Your task to perform on an android device: Go to privacy settings Image 0: 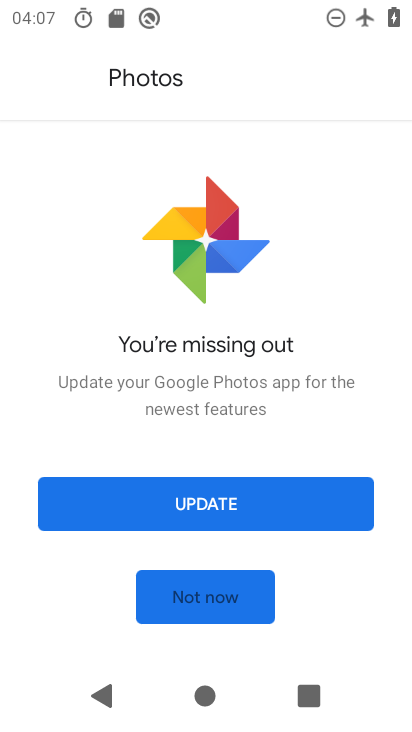
Step 0: press back button
Your task to perform on an android device: Go to privacy settings Image 1: 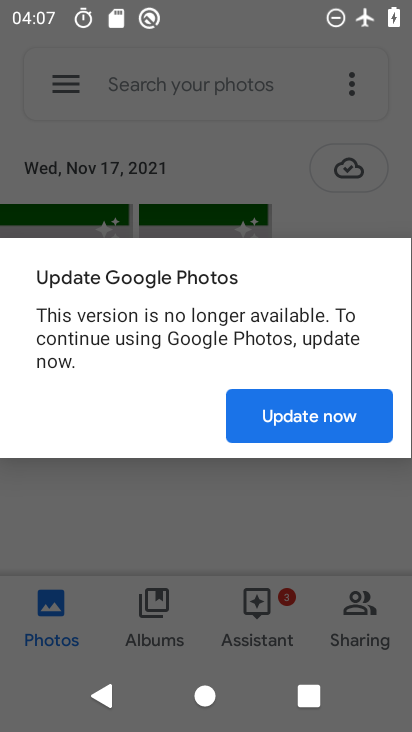
Step 1: press home button
Your task to perform on an android device: Go to privacy settings Image 2: 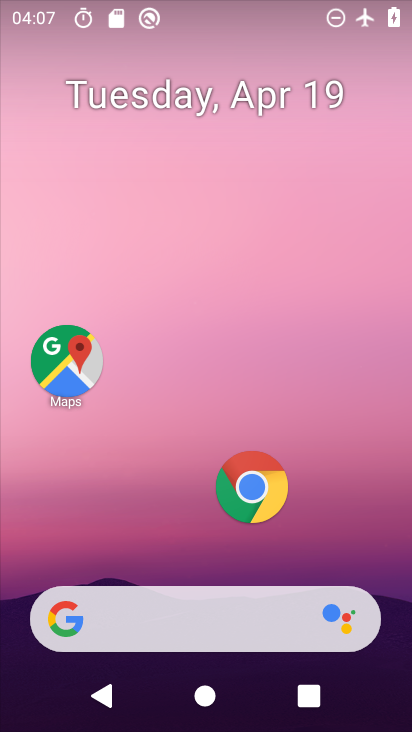
Step 2: drag from (175, 537) to (406, 12)
Your task to perform on an android device: Go to privacy settings Image 3: 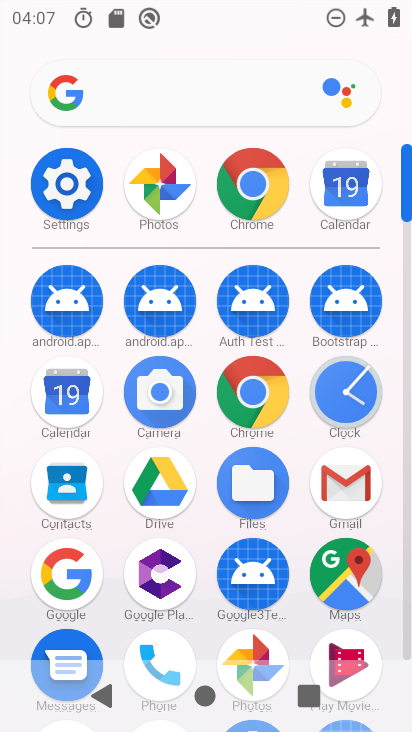
Step 3: click (87, 181)
Your task to perform on an android device: Go to privacy settings Image 4: 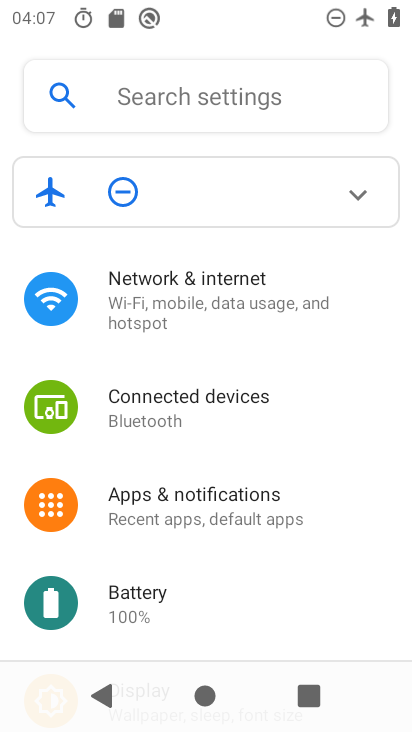
Step 4: drag from (162, 523) to (231, 116)
Your task to perform on an android device: Go to privacy settings Image 5: 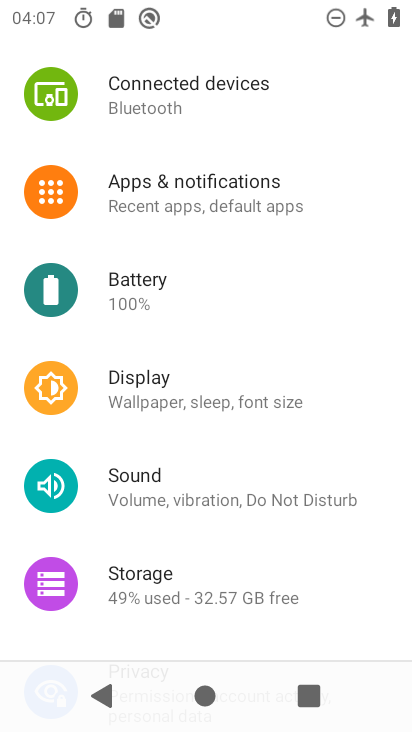
Step 5: drag from (175, 579) to (278, 133)
Your task to perform on an android device: Go to privacy settings Image 6: 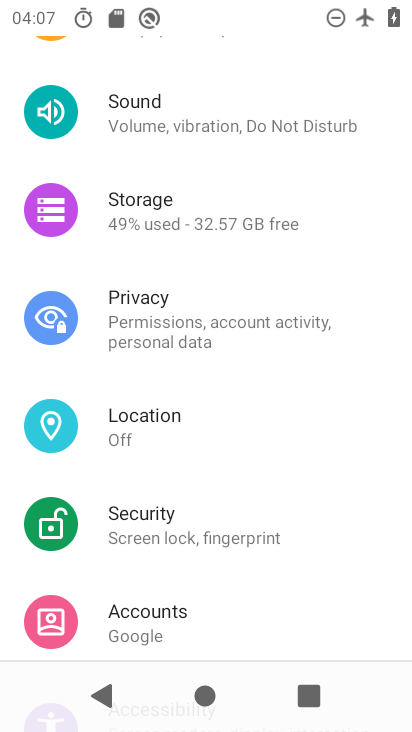
Step 6: click (160, 321)
Your task to perform on an android device: Go to privacy settings Image 7: 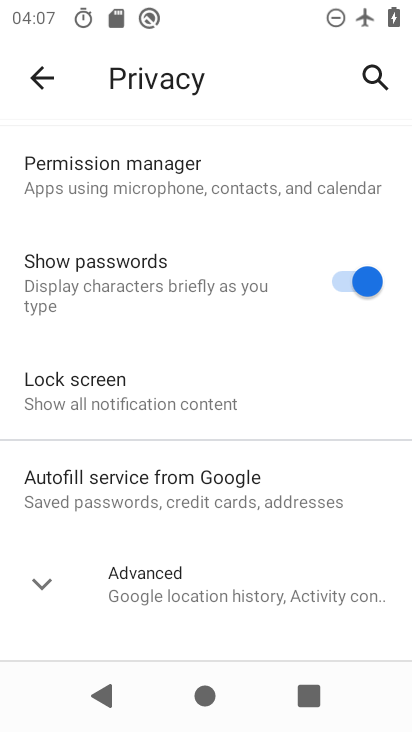
Step 7: task complete